Your task to perform on an android device: View the shopping cart on amazon.com. Image 0: 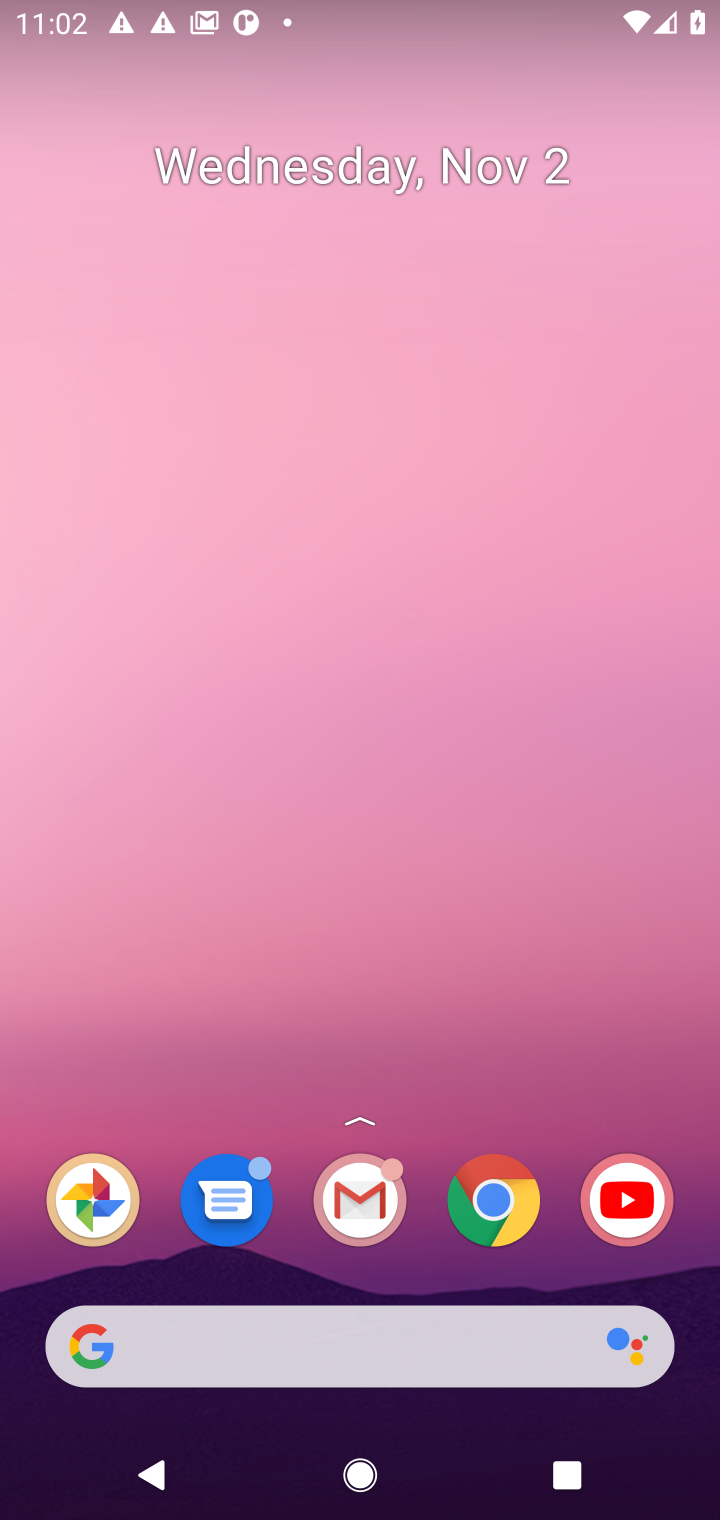
Step 0: click (505, 1201)
Your task to perform on an android device: View the shopping cart on amazon.com. Image 1: 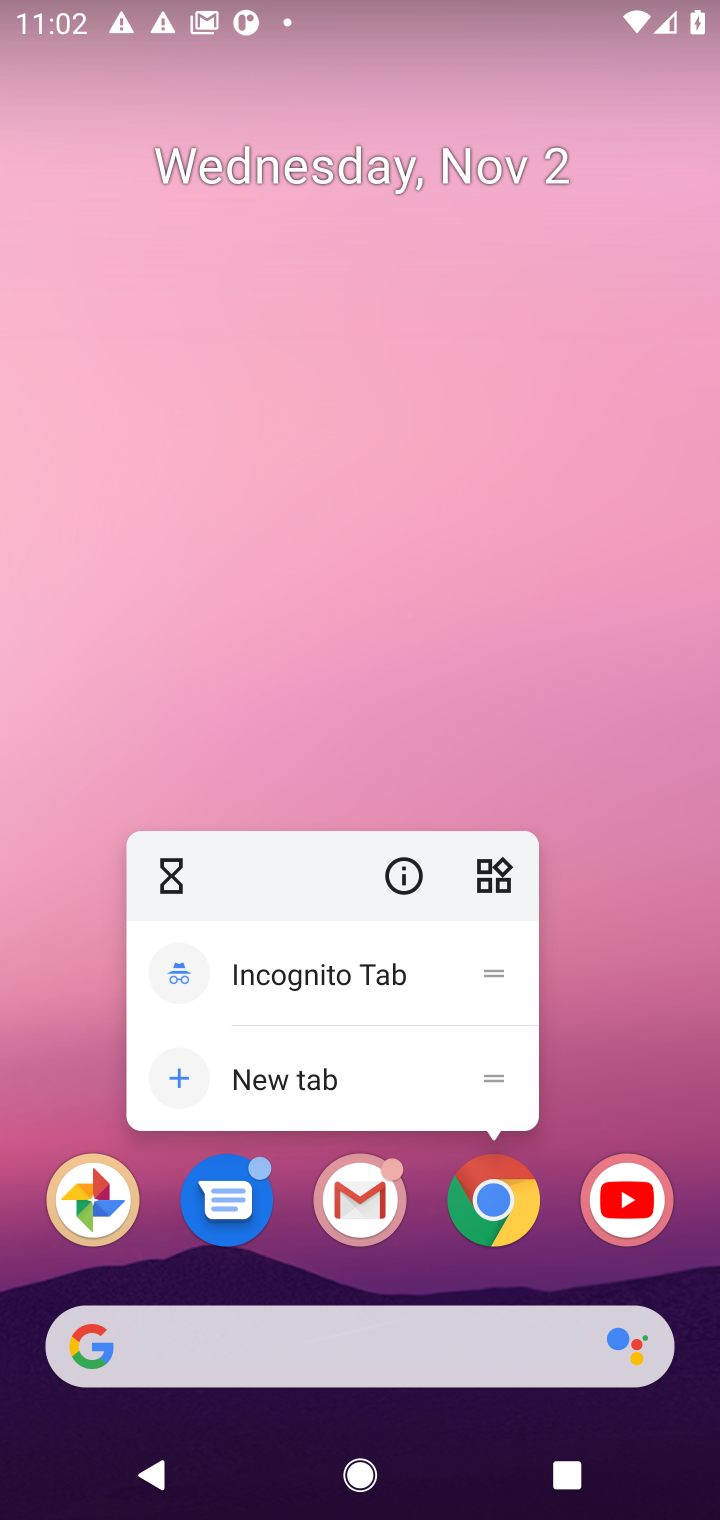
Step 1: click (505, 1201)
Your task to perform on an android device: View the shopping cart on amazon.com. Image 2: 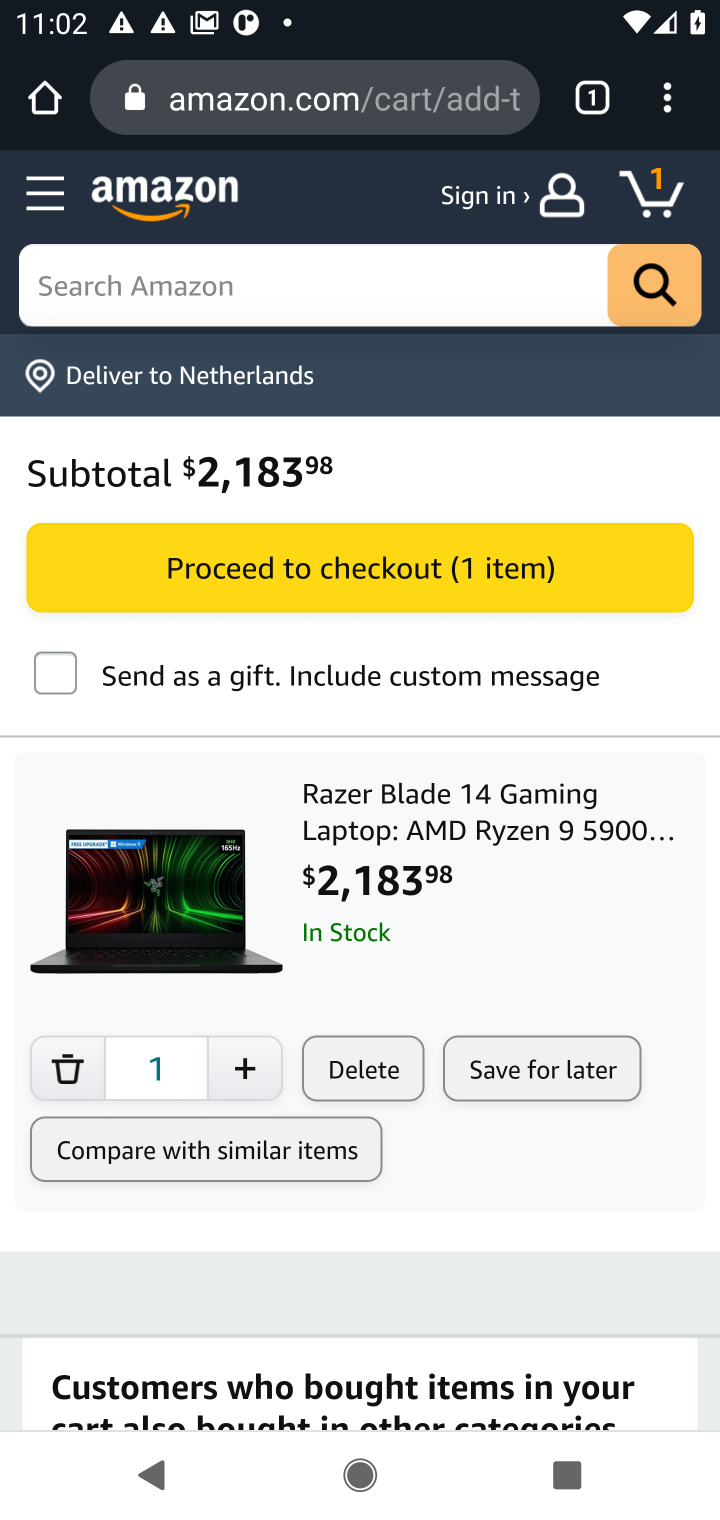
Step 2: click (658, 197)
Your task to perform on an android device: View the shopping cart on amazon.com. Image 3: 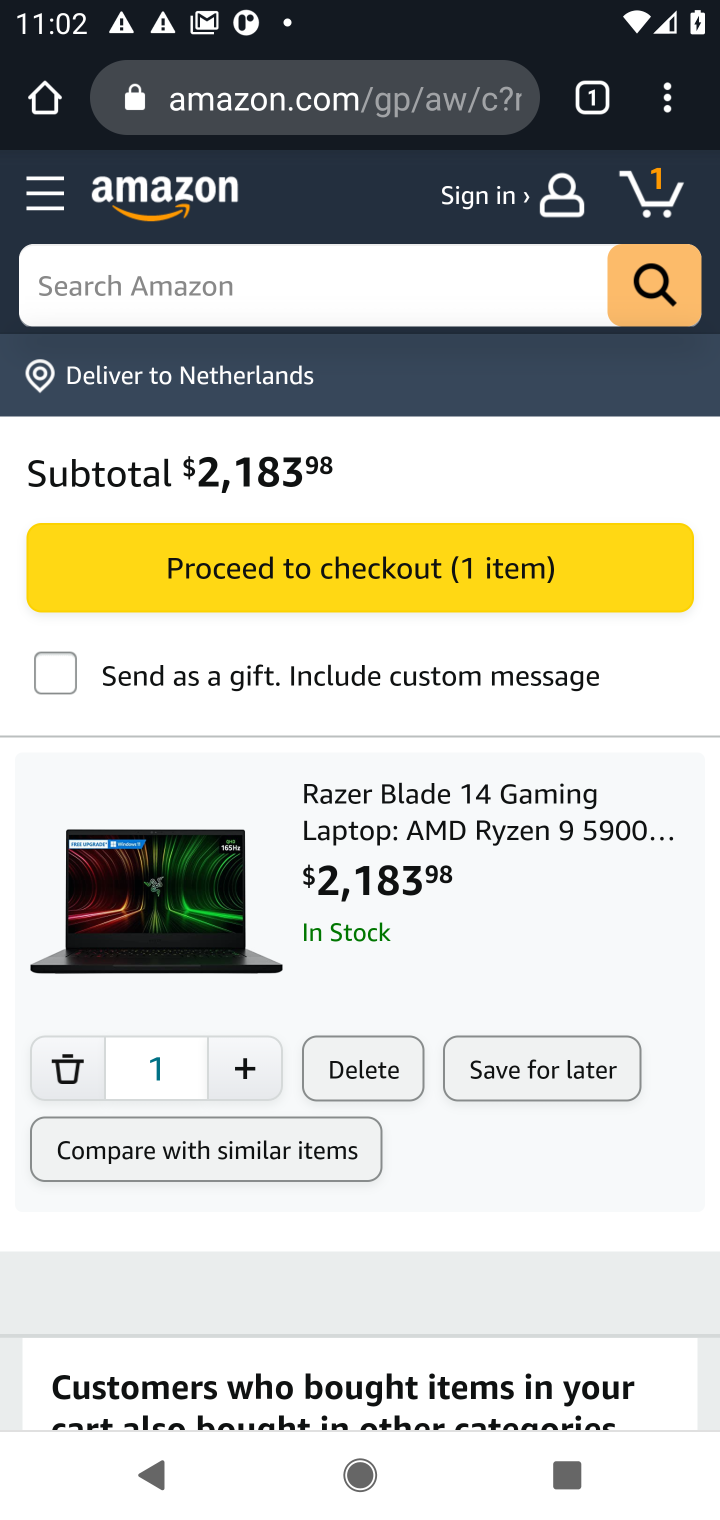
Step 3: task complete